Your task to perform on an android device: Check the news Image 0: 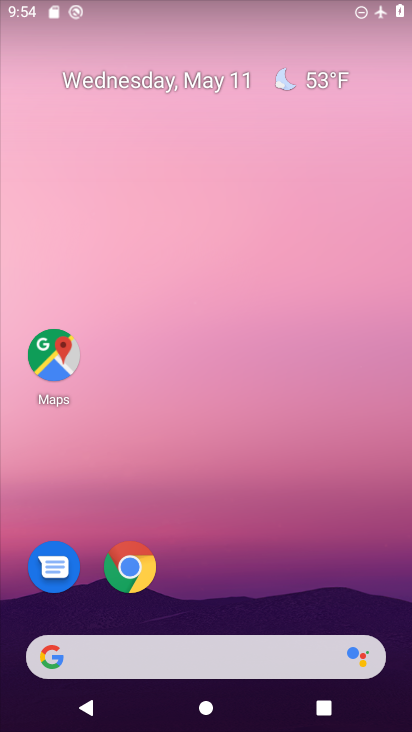
Step 0: click (121, 656)
Your task to perform on an android device: Check the news Image 1: 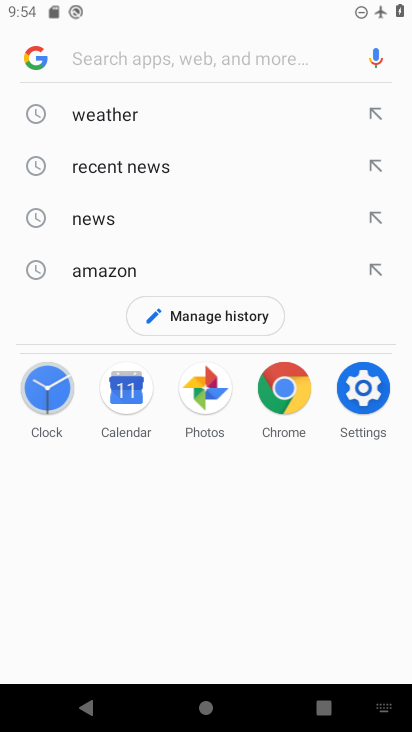
Step 1: type "news"
Your task to perform on an android device: Check the news Image 2: 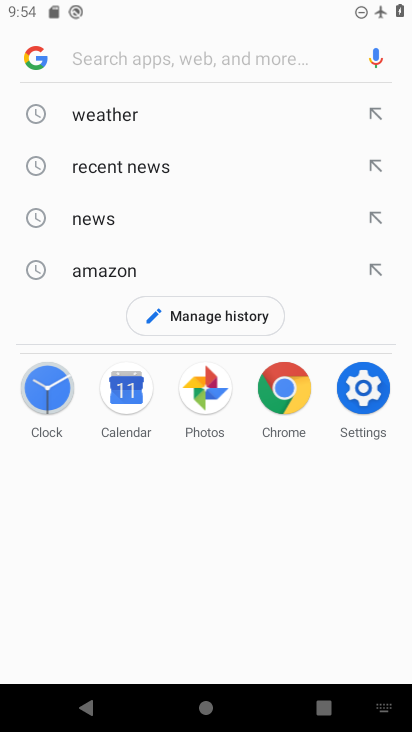
Step 2: click (152, 221)
Your task to perform on an android device: Check the news Image 3: 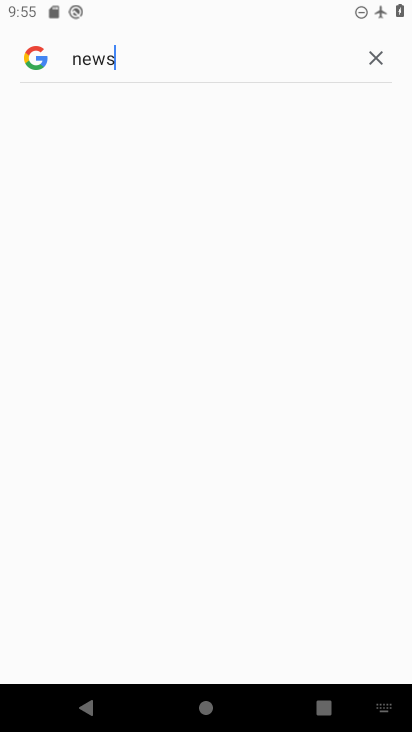
Step 3: task complete